Your task to perform on an android device: toggle notification dots Image 0: 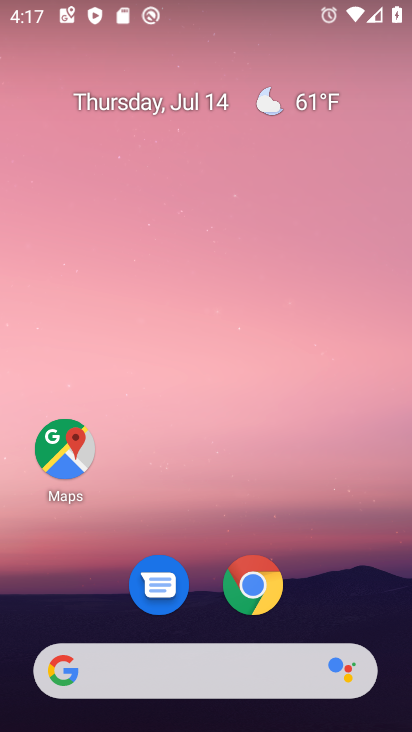
Step 0: drag from (291, 534) to (314, 27)
Your task to perform on an android device: toggle notification dots Image 1: 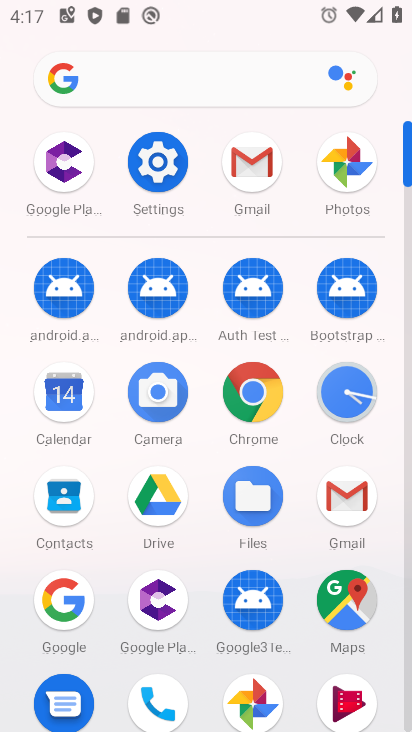
Step 1: click (163, 155)
Your task to perform on an android device: toggle notification dots Image 2: 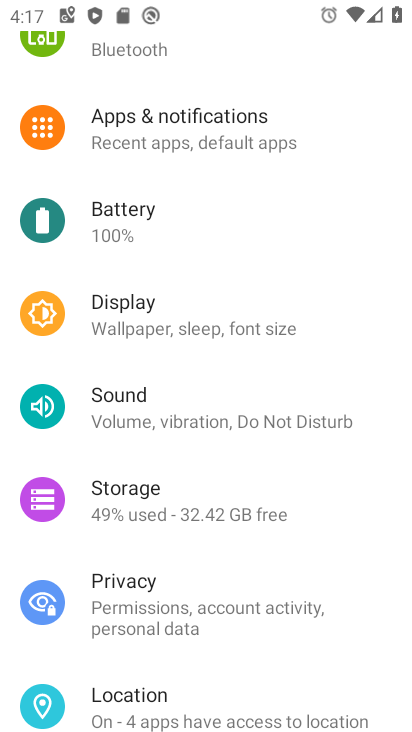
Step 2: click (251, 139)
Your task to perform on an android device: toggle notification dots Image 3: 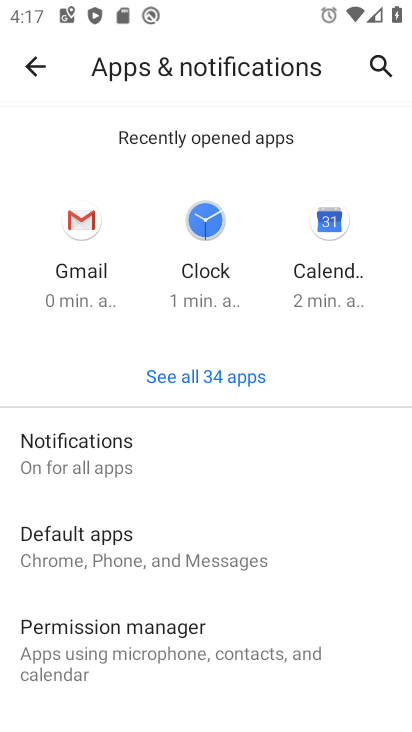
Step 3: click (104, 460)
Your task to perform on an android device: toggle notification dots Image 4: 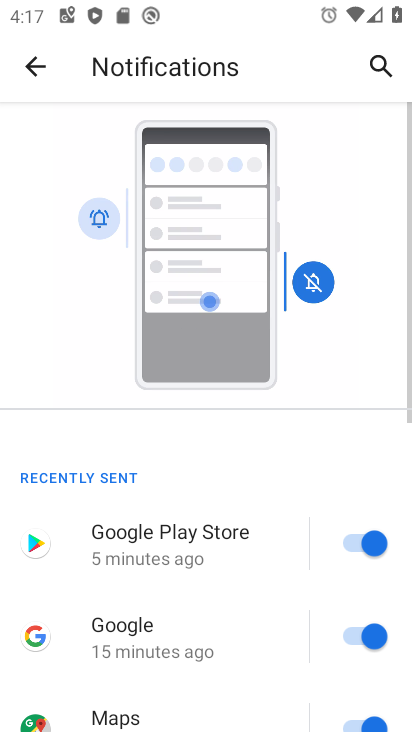
Step 4: drag from (232, 619) to (282, 146)
Your task to perform on an android device: toggle notification dots Image 5: 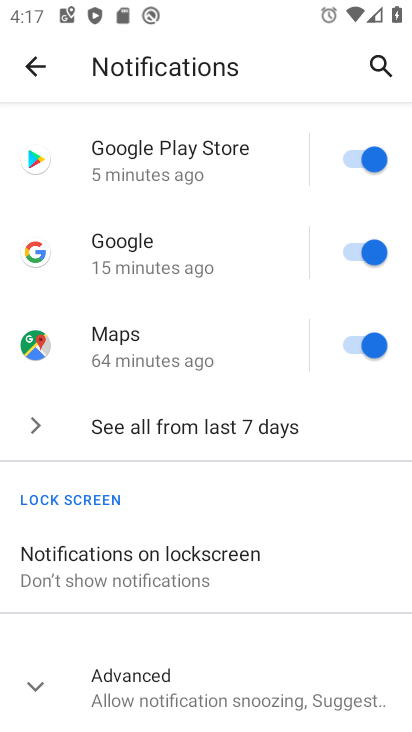
Step 5: click (40, 682)
Your task to perform on an android device: toggle notification dots Image 6: 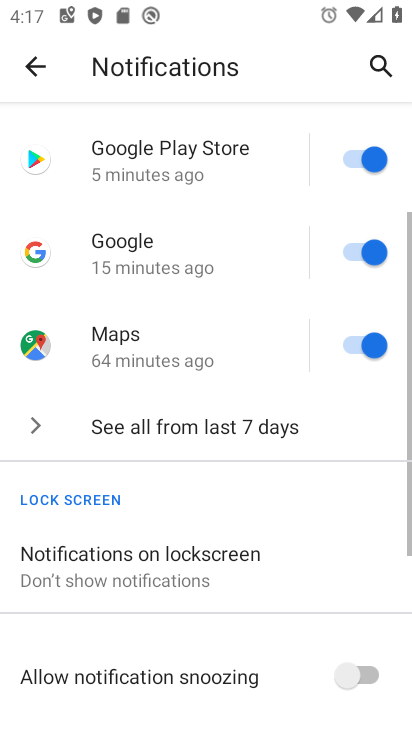
Step 6: drag from (251, 525) to (278, 128)
Your task to perform on an android device: toggle notification dots Image 7: 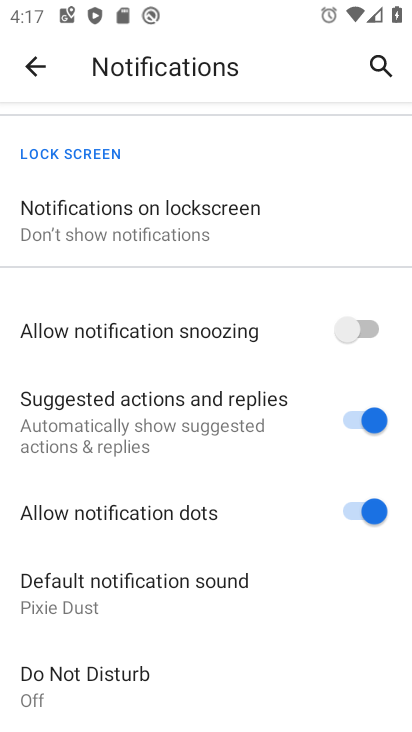
Step 7: click (367, 516)
Your task to perform on an android device: toggle notification dots Image 8: 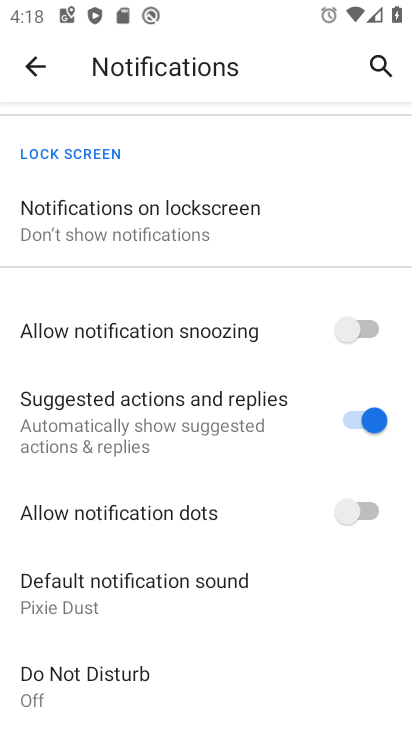
Step 8: task complete